Your task to perform on an android device: When is my next meeting? Image 0: 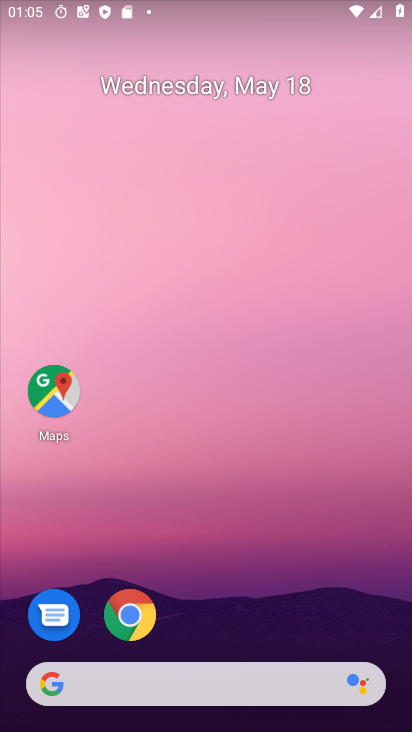
Step 0: drag from (205, 642) to (221, 262)
Your task to perform on an android device: When is my next meeting? Image 1: 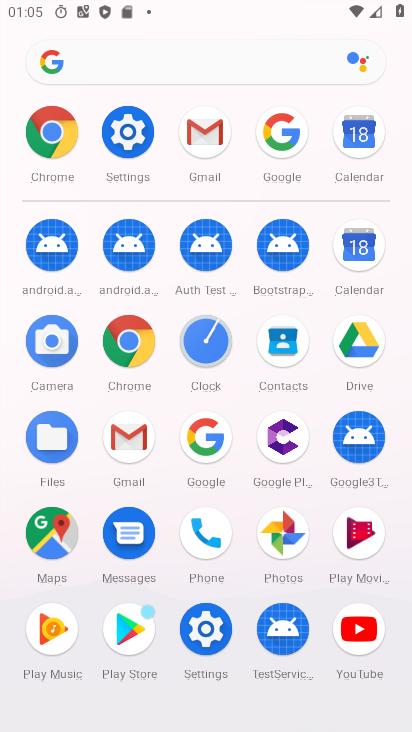
Step 1: click (368, 141)
Your task to perform on an android device: When is my next meeting? Image 2: 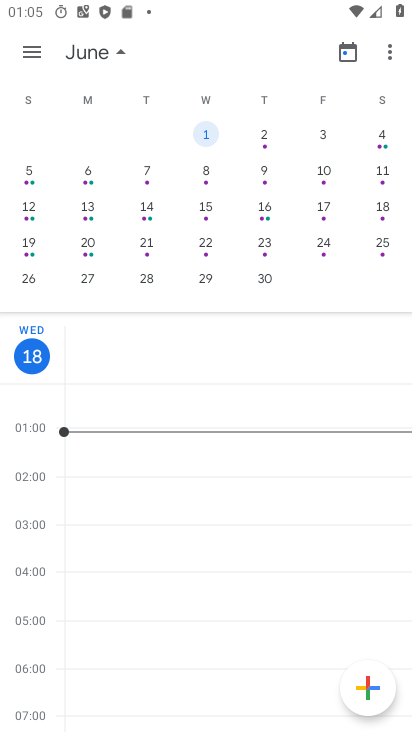
Step 2: drag from (181, 545) to (199, 368)
Your task to perform on an android device: When is my next meeting? Image 3: 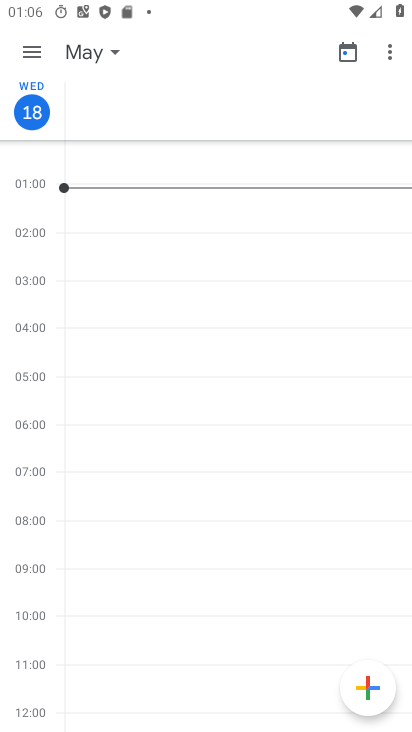
Step 3: drag from (190, 487) to (149, 168)
Your task to perform on an android device: When is my next meeting? Image 4: 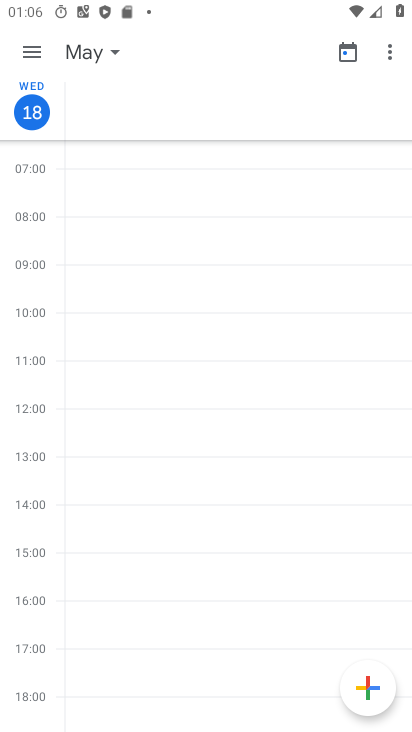
Step 4: click (37, 53)
Your task to perform on an android device: When is my next meeting? Image 5: 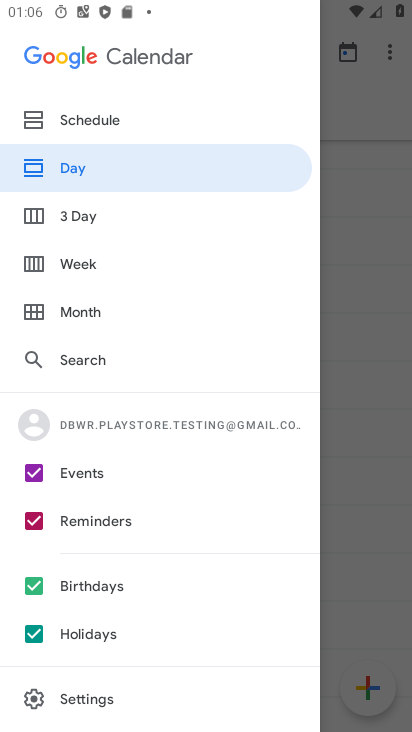
Step 5: click (80, 123)
Your task to perform on an android device: When is my next meeting? Image 6: 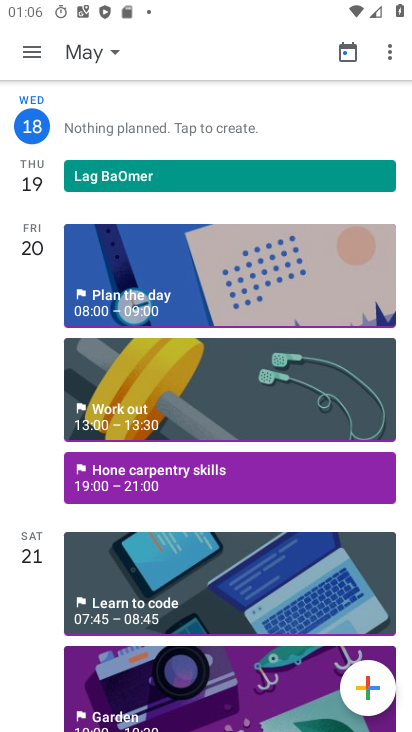
Step 6: task complete